Your task to perform on an android device: Turn on the flashlight Image 0: 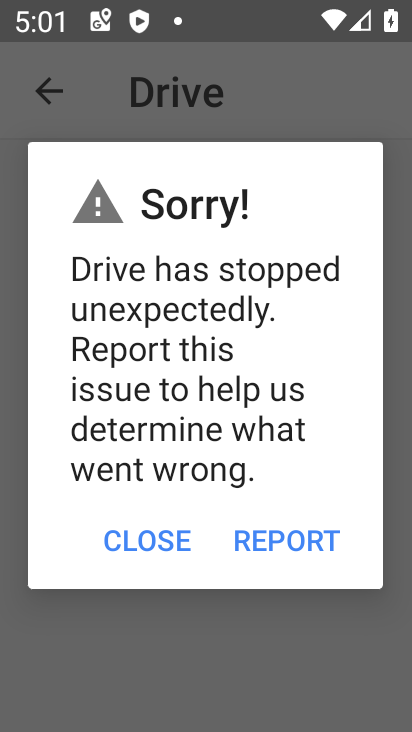
Step 0: press home button
Your task to perform on an android device: Turn on the flashlight Image 1: 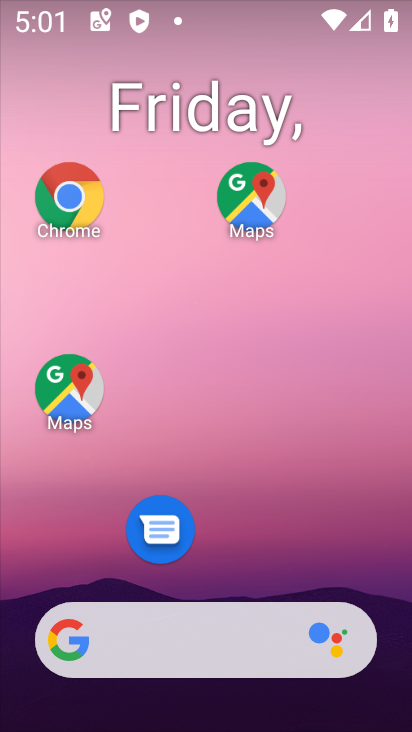
Step 1: task complete